Your task to perform on an android device: Show me popular videos on Youtube Image 0: 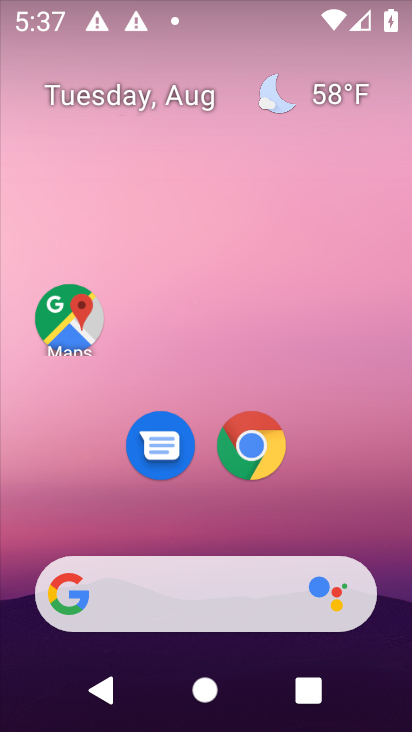
Step 0: drag from (181, 528) to (197, 107)
Your task to perform on an android device: Show me popular videos on Youtube Image 1: 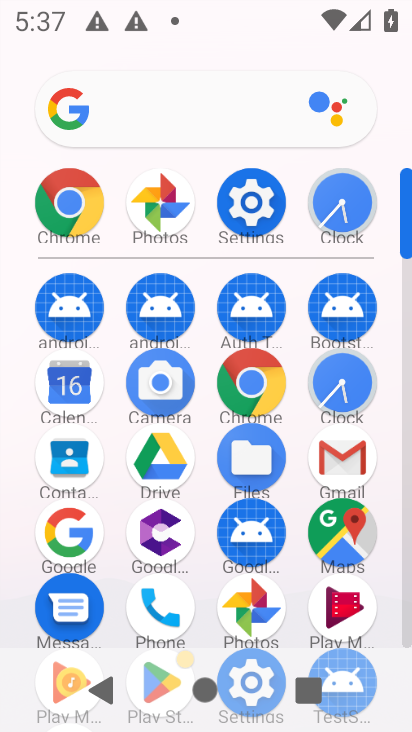
Step 1: drag from (108, 509) to (148, 200)
Your task to perform on an android device: Show me popular videos on Youtube Image 2: 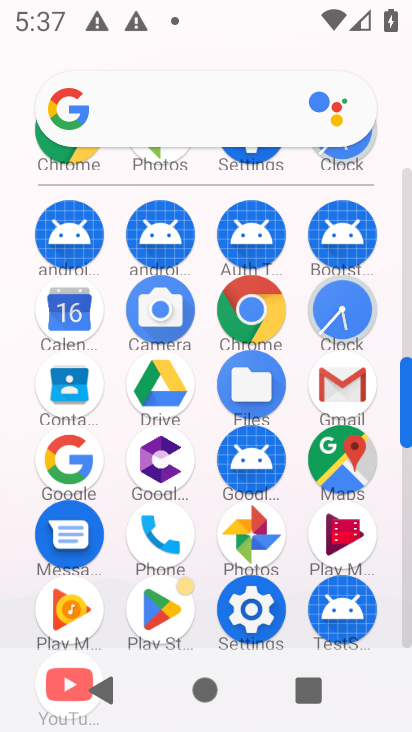
Step 2: drag from (115, 542) to (115, 274)
Your task to perform on an android device: Show me popular videos on Youtube Image 3: 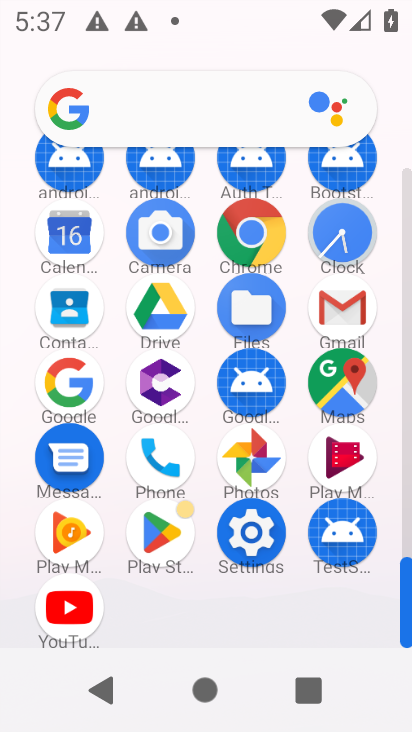
Step 3: click (67, 610)
Your task to perform on an android device: Show me popular videos on Youtube Image 4: 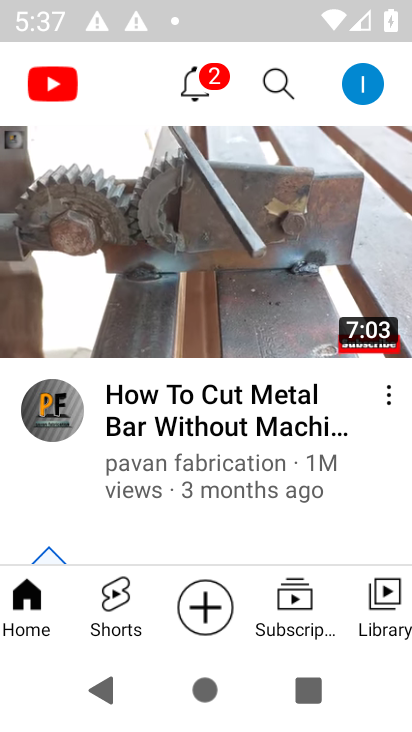
Step 4: task complete